Your task to perform on an android device: Go to eBay Image 0: 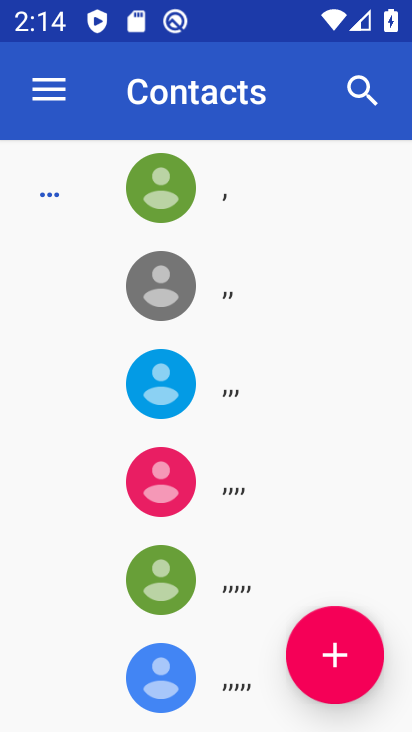
Step 0: press home button
Your task to perform on an android device: Go to eBay Image 1: 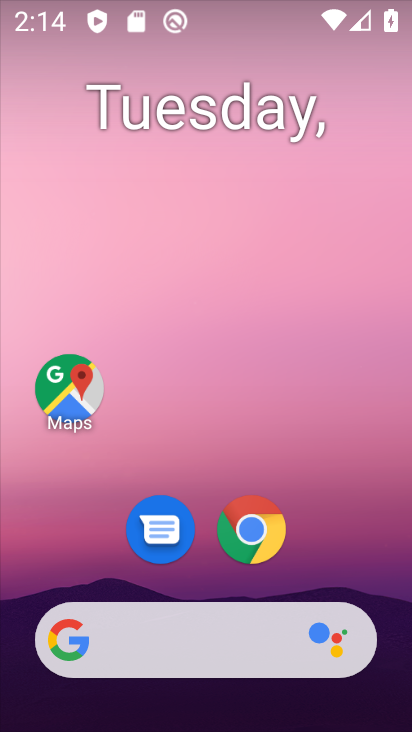
Step 1: click (258, 530)
Your task to perform on an android device: Go to eBay Image 2: 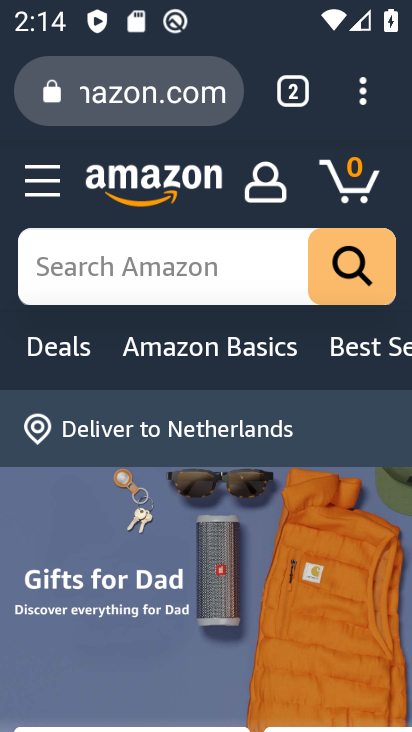
Step 2: click (141, 84)
Your task to perform on an android device: Go to eBay Image 3: 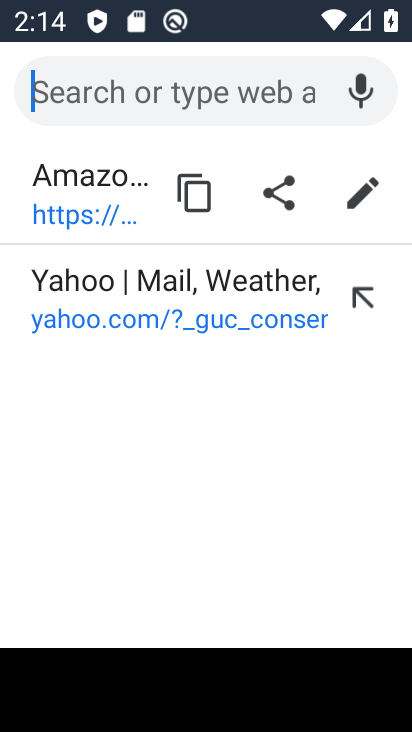
Step 3: type "ebay"
Your task to perform on an android device: Go to eBay Image 4: 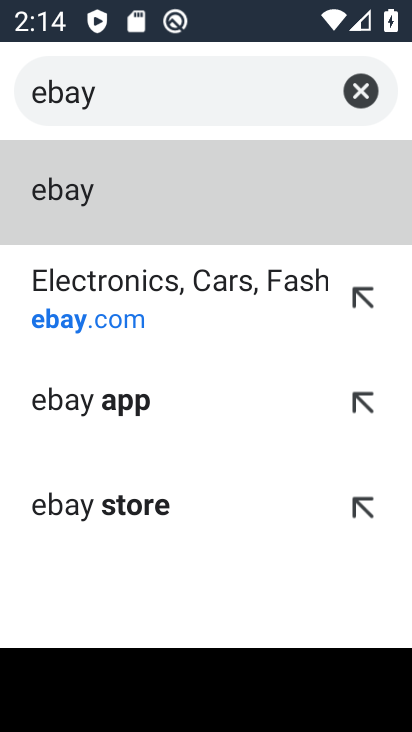
Step 4: click (66, 178)
Your task to perform on an android device: Go to eBay Image 5: 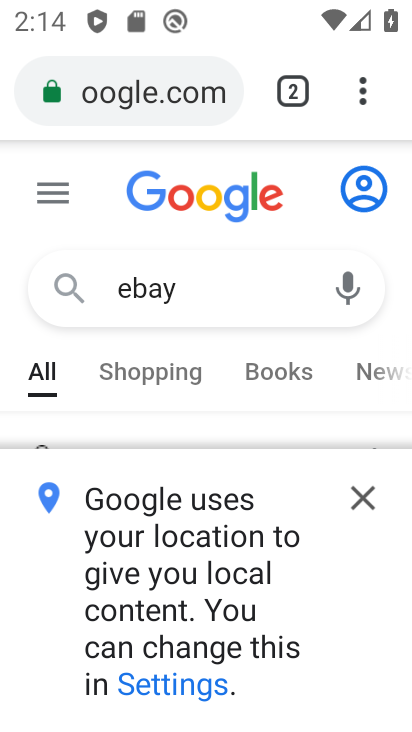
Step 5: click (340, 496)
Your task to perform on an android device: Go to eBay Image 6: 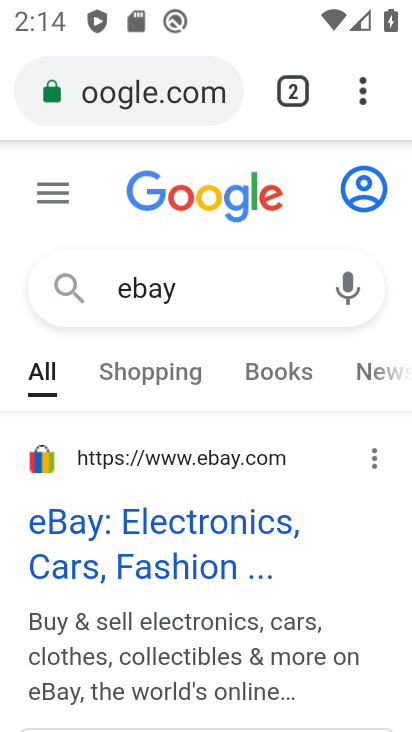
Step 6: click (99, 524)
Your task to perform on an android device: Go to eBay Image 7: 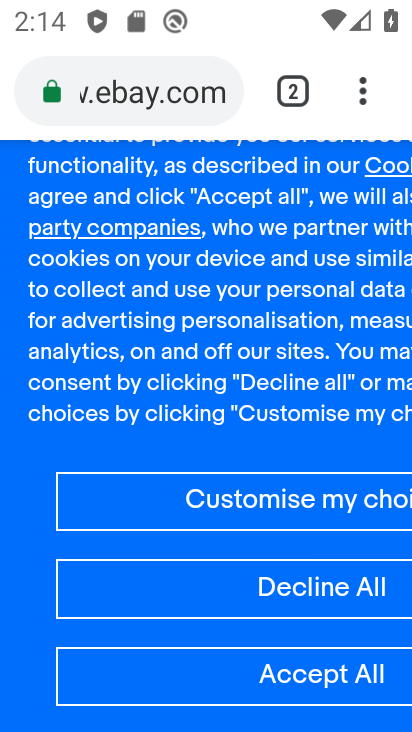
Step 7: task complete